Your task to perform on an android device: snooze an email in the gmail app Image 0: 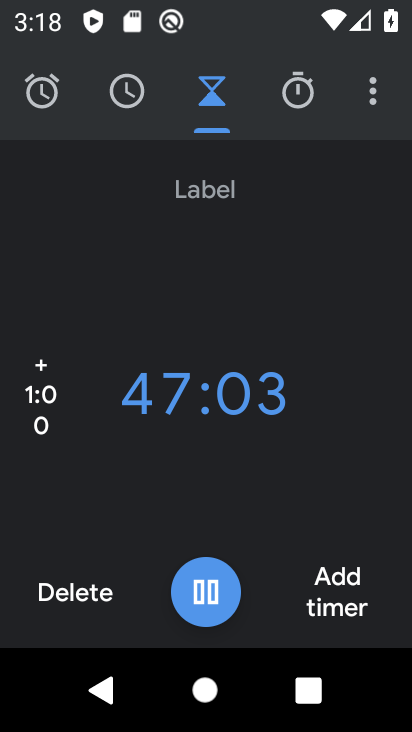
Step 0: press home button
Your task to perform on an android device: snooze an email in the gmail app Image 1: 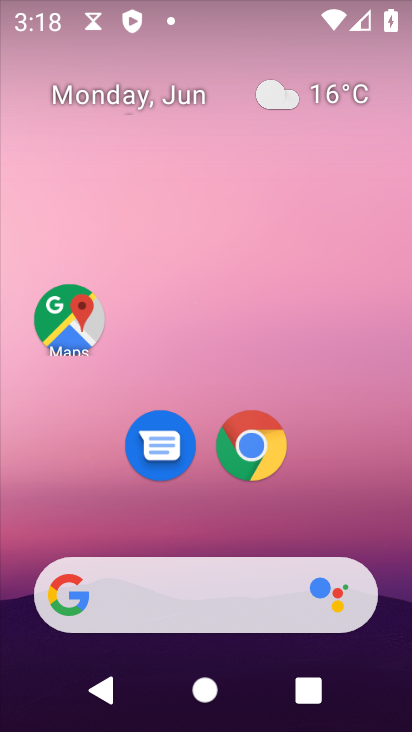
Step 1: drag from (76, 538) to (244, 72)
Your task to perform on an android device: snooze an email in the gmail app Image 2: 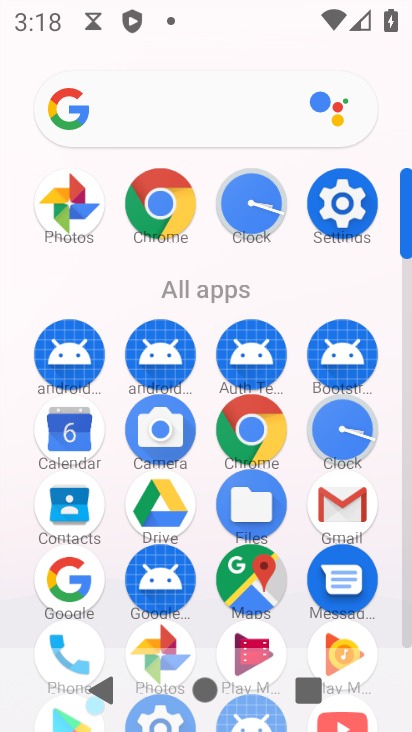
Step 2: click (350, 511)
Your task to perform on an android device: snooze an email in the gmail app Image 3: 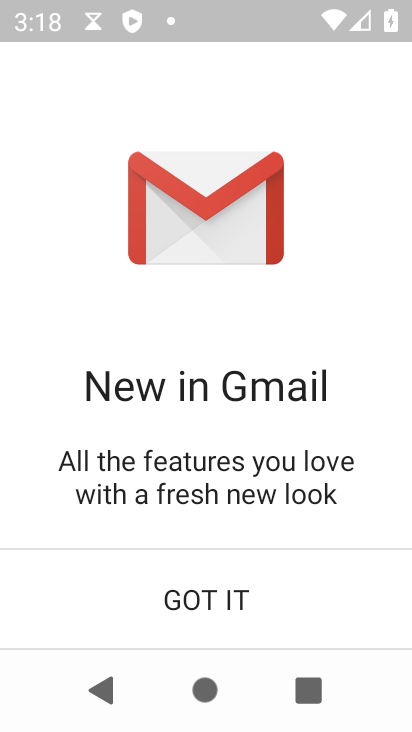
Step 3: click (310, 622)
Your task to perform on an android device: snooze an email in the gmail app Image 4: 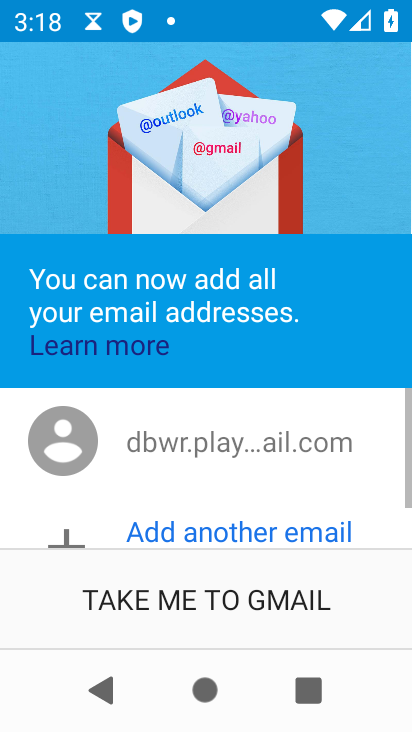
Step 4: click (310, 620)
Your task to perform on an android device: snooze an email in the gmail app Image 5: 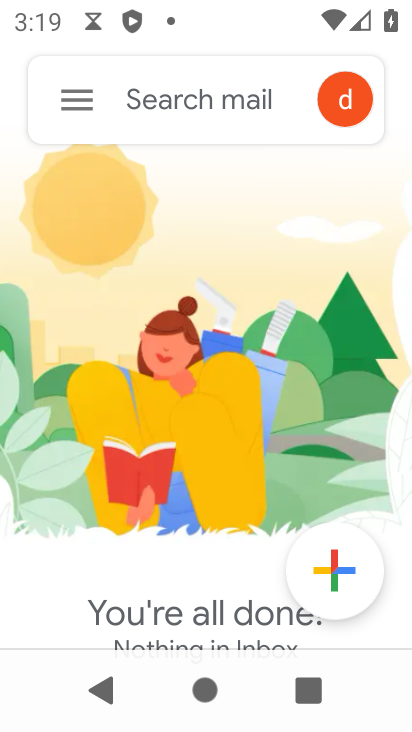
Step 5: click (80, 111)
Your task to perform on an android device: snooze an email in the gmail app Image 6: 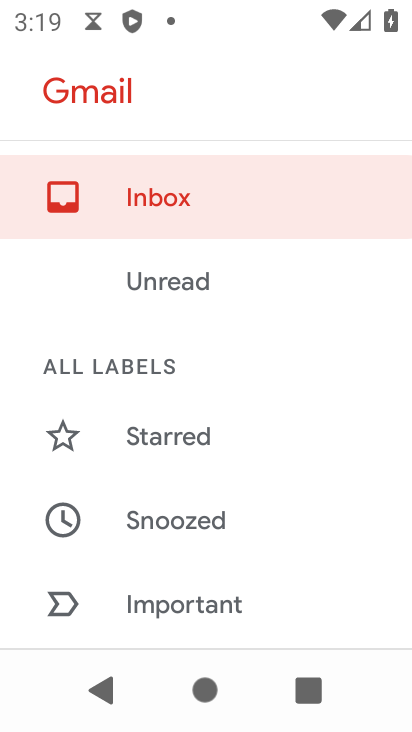
Step 6: drag from (136, 593) to (299, 132)
Your task to perform on an android device: snooze an email in the gmail app Image 7: 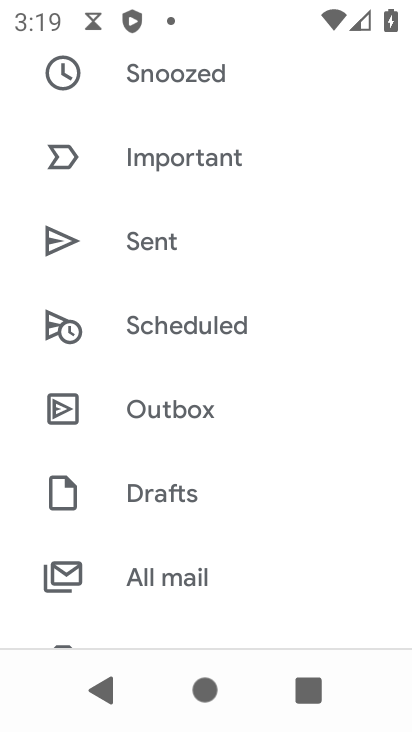
Step 7: click (189, 561)
Your task to perform on an android device: snooze an email in the gmail app Image 8: 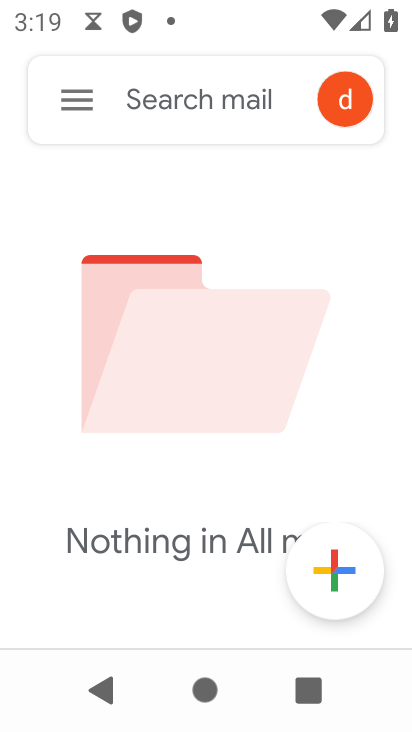
Step 8: task complete